Your task to perform on an android device: Go to wifi settings Image 0: 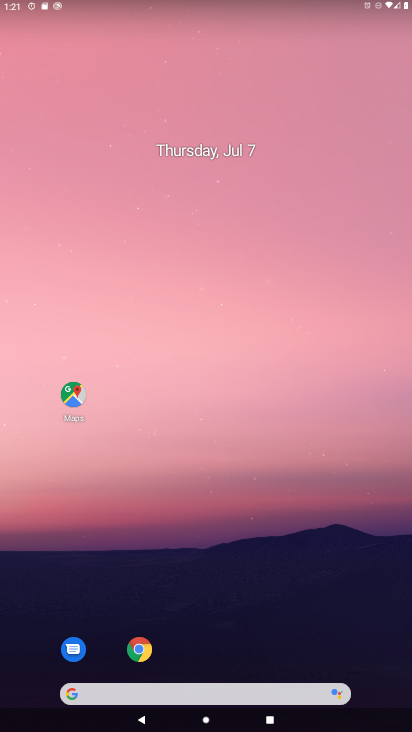
Step 0: drag from (201, 643) to (174, 0)
Your task to perform on an android device: Go to wifi settings Image 1: 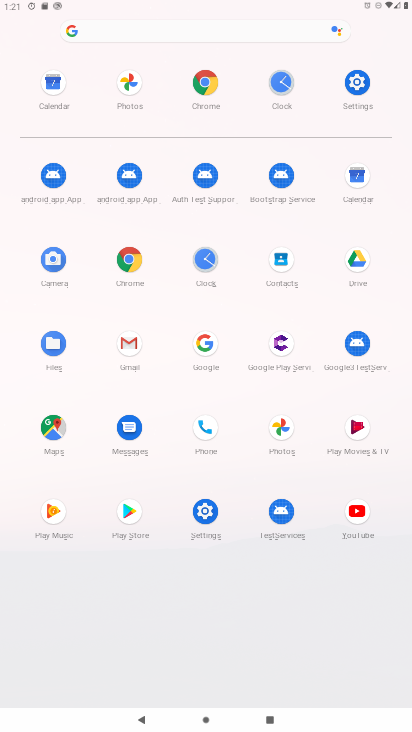
Step 1: click (342, 118)
Your task to perform on an android device: Go to wifi settings Image 2: 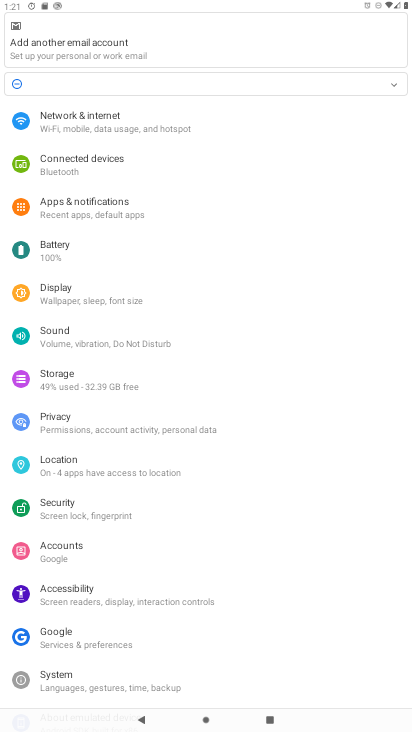
Step 2: click (93, 125)
Your task to perform on an android device: Go to wifi settings Image 3: 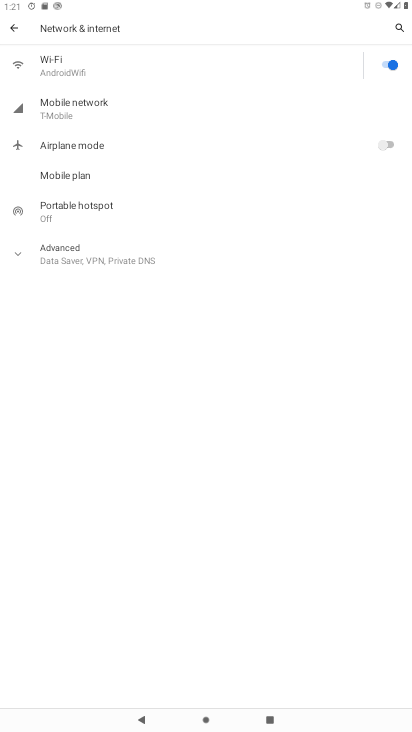
Step 3: click (63, 74)
Your task to perform on an android device: Go to wifi settings Image 4: 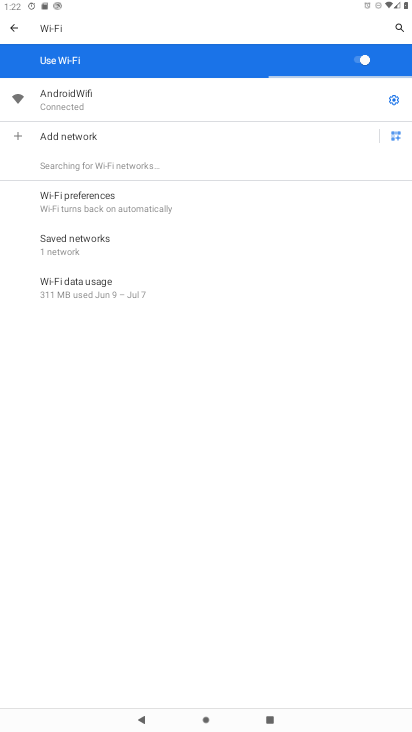
Step 4: task complete